Your task to perform on an android device: check android version Image 0: 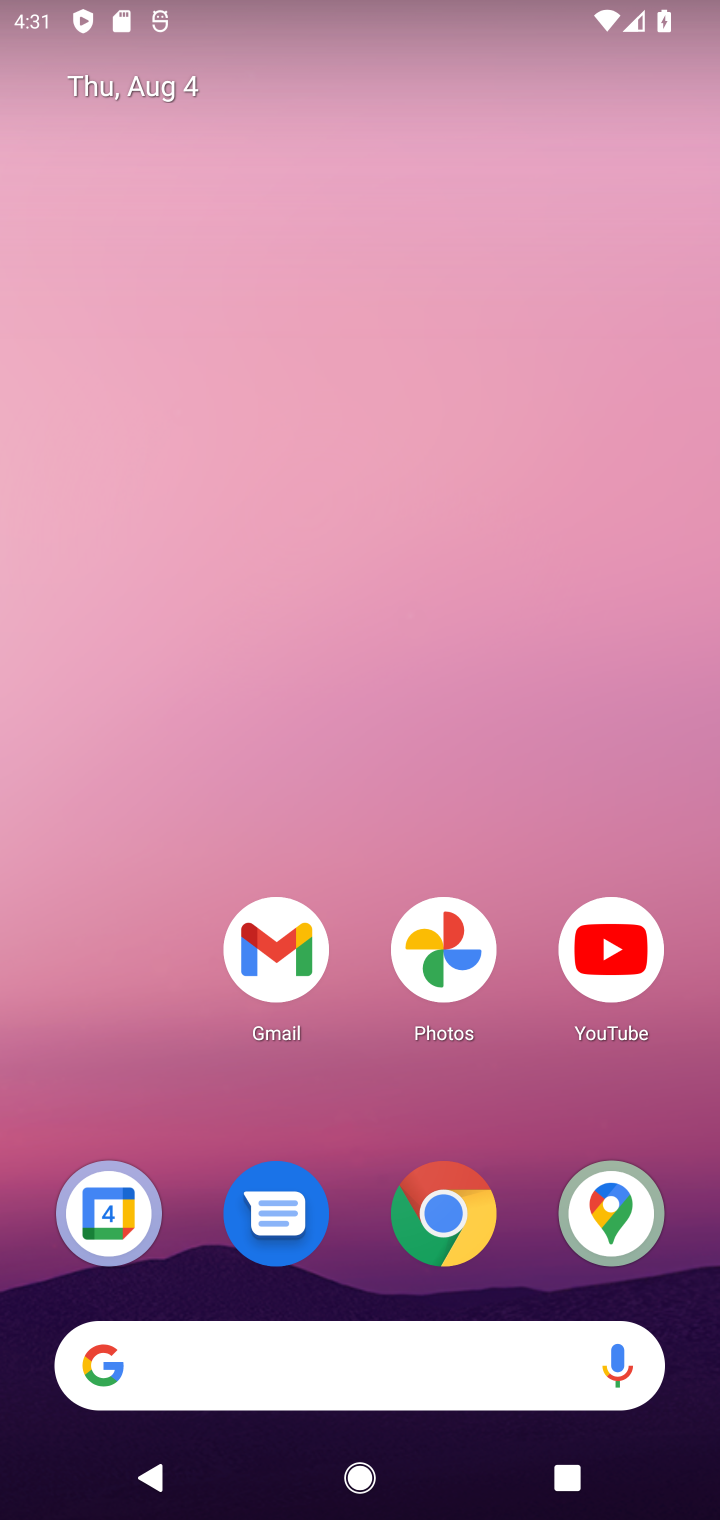
Step 0: press home button
Your task to perform on an android device: check android version Image 1: 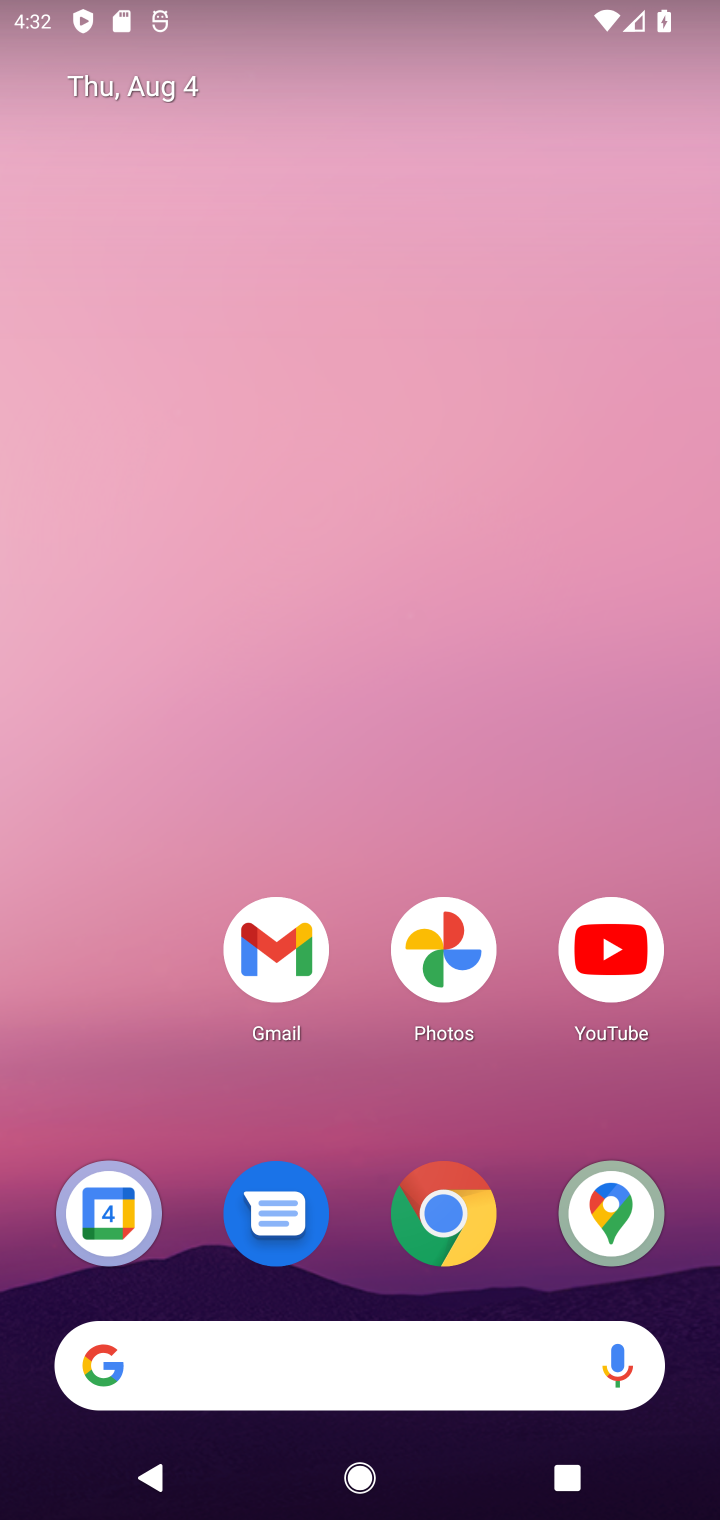
Step 1: drag from (191, 1149) to (185, 487)
Your task to perform on an android device: check android version Image 2: 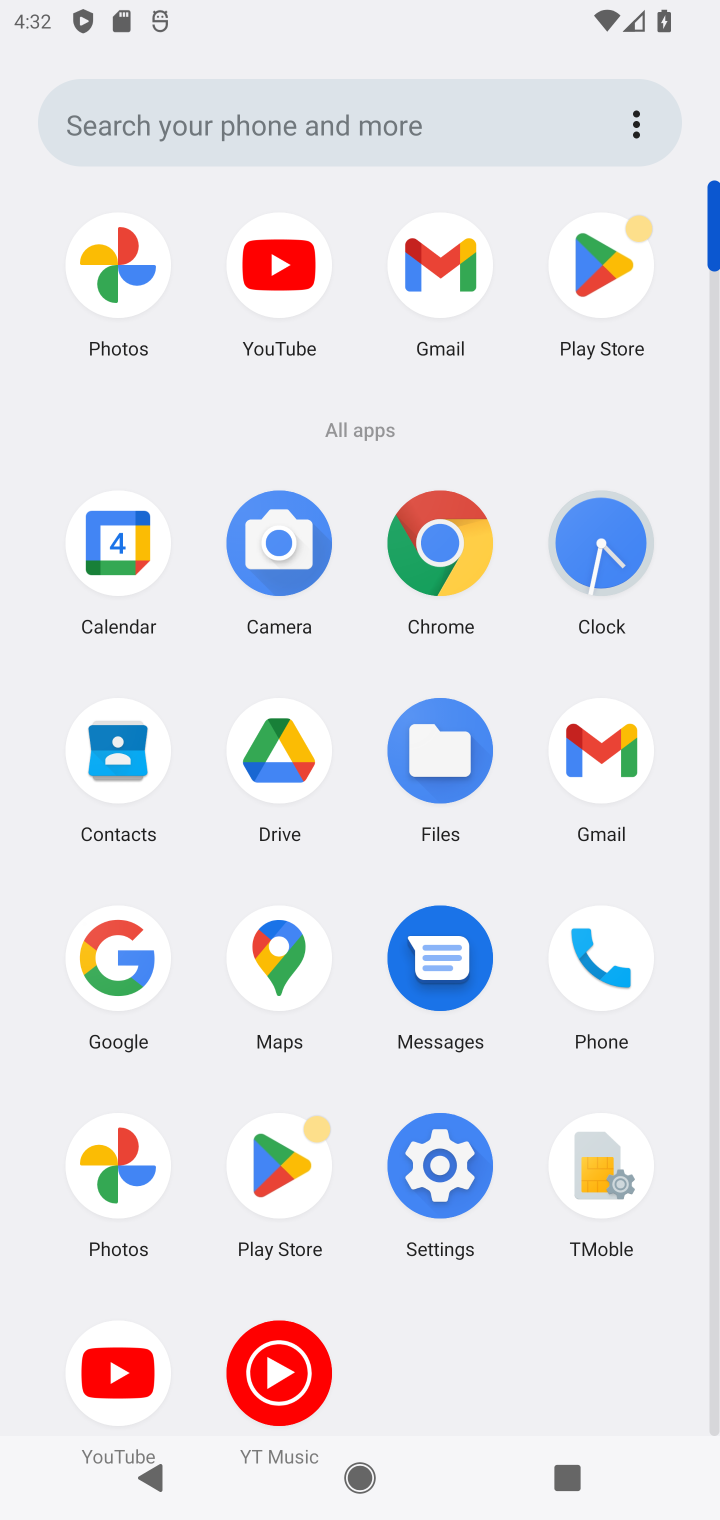
Step 2: click (439, 1162)
Your task to perform on an android device: check android version Image 3: 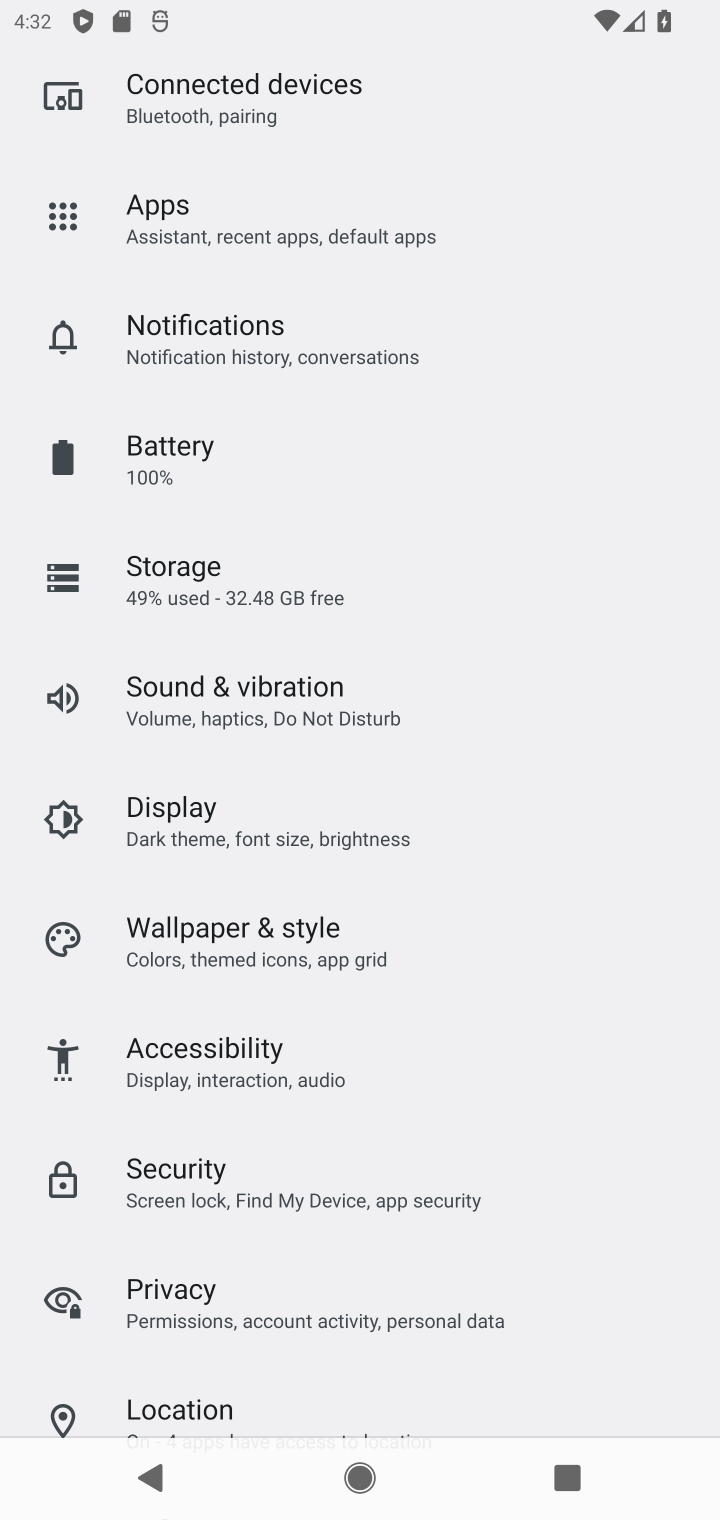
Step 3: drag from (602, 1275) to (594, 1093)
Your task to perform on an android device: check android version Image 4: 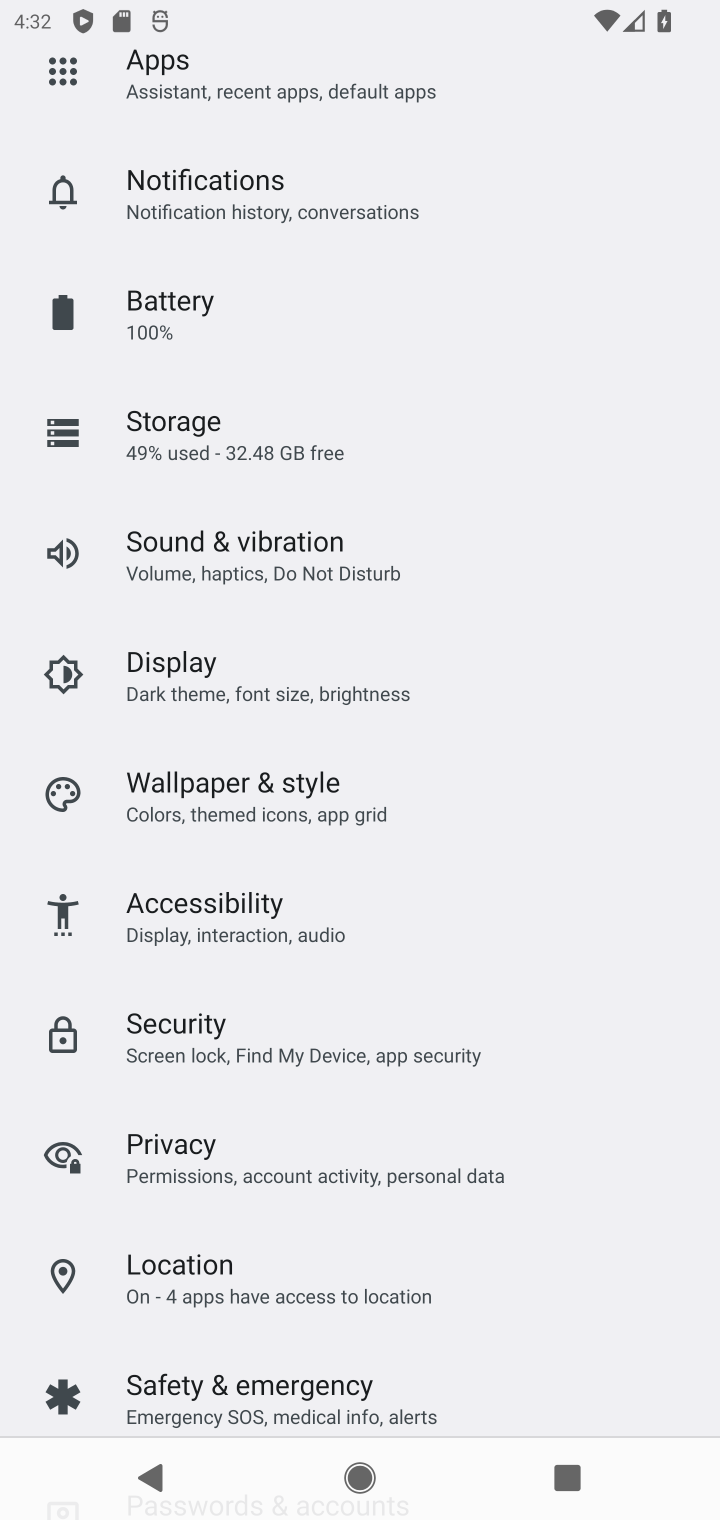
Step 4: drag from (588, 1196) to (621, 897)
Your task to perform on an android device: check android version Image 5: 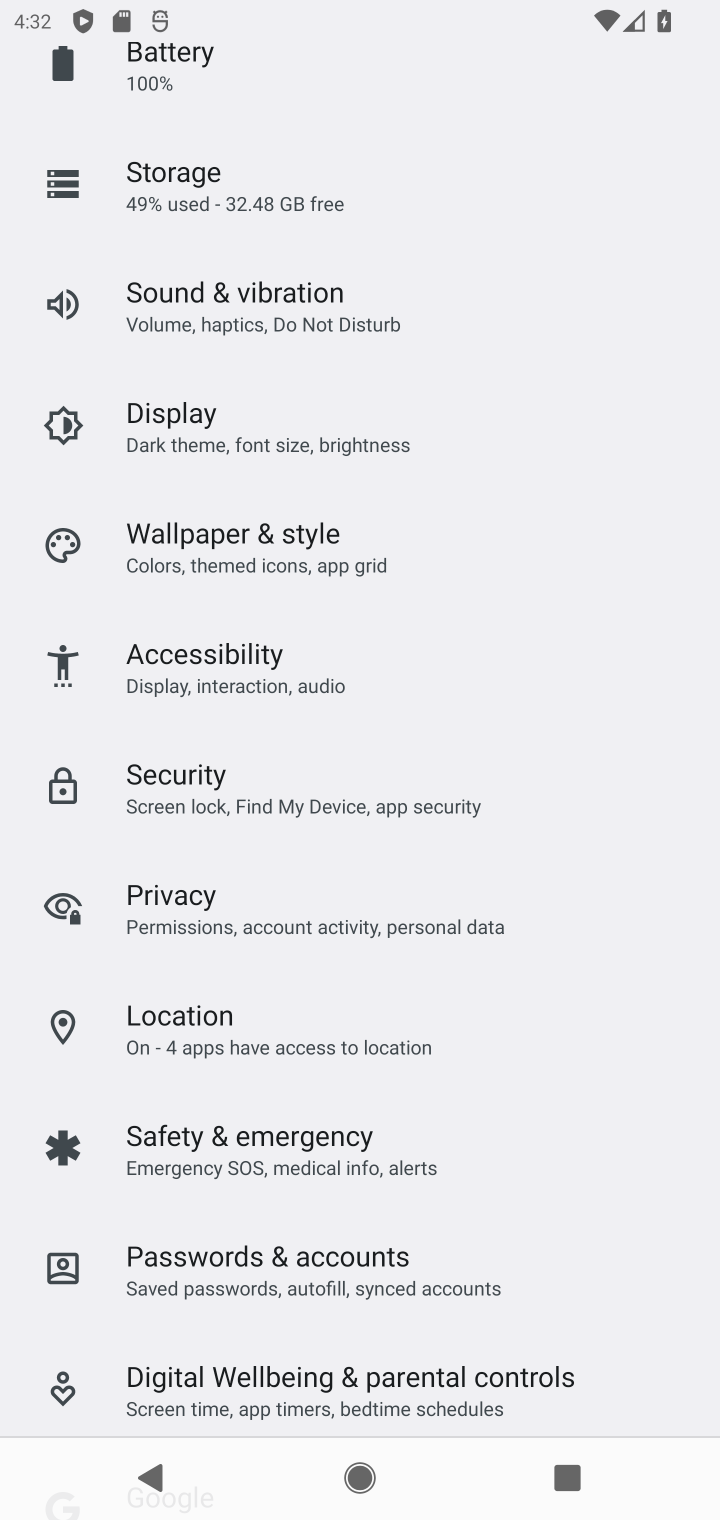
Step 5: drag from (553, 1221) to (578, 789)
Your task to perform on an android device: check android version Image 6: 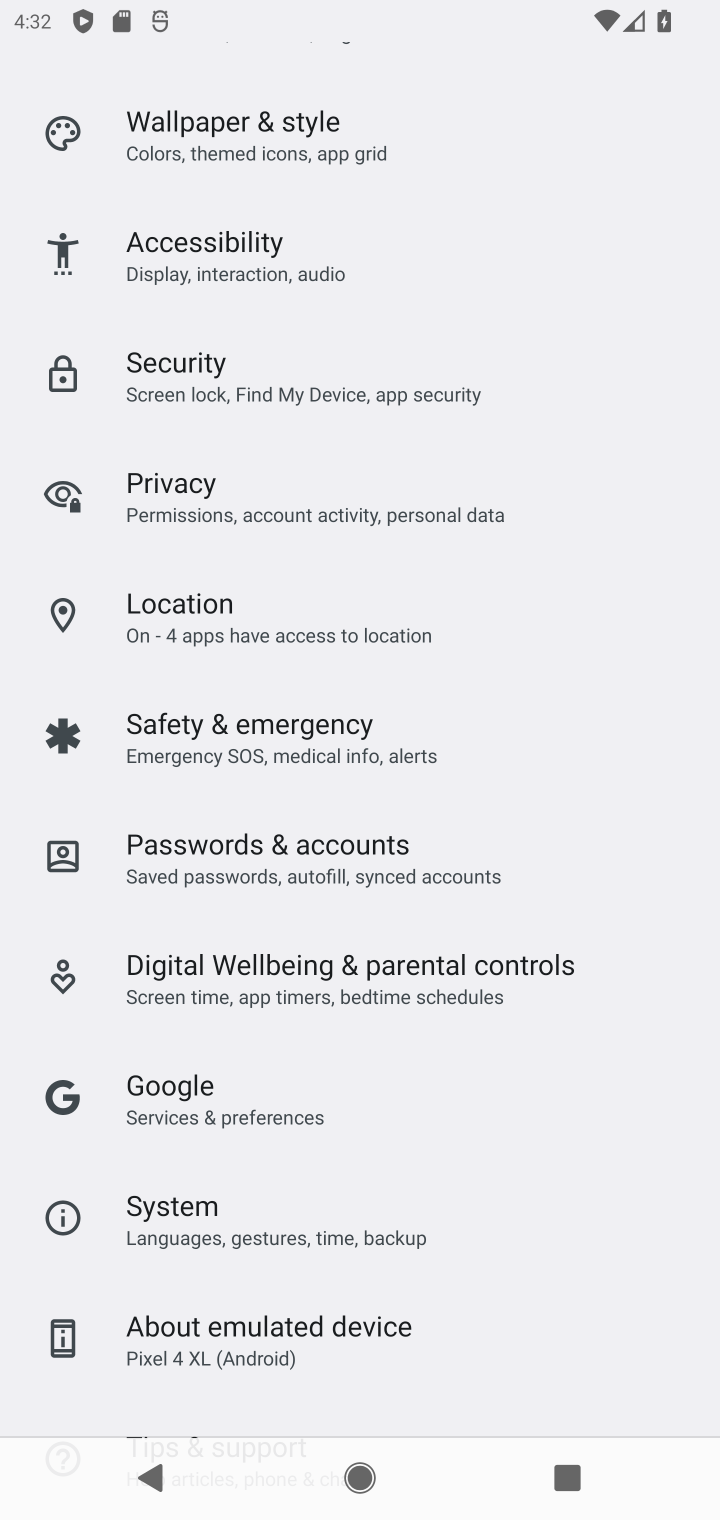
Step 6: drag from (578, 1263) to (565, 900)
Your task to perform on an android device: check android version Image 7: 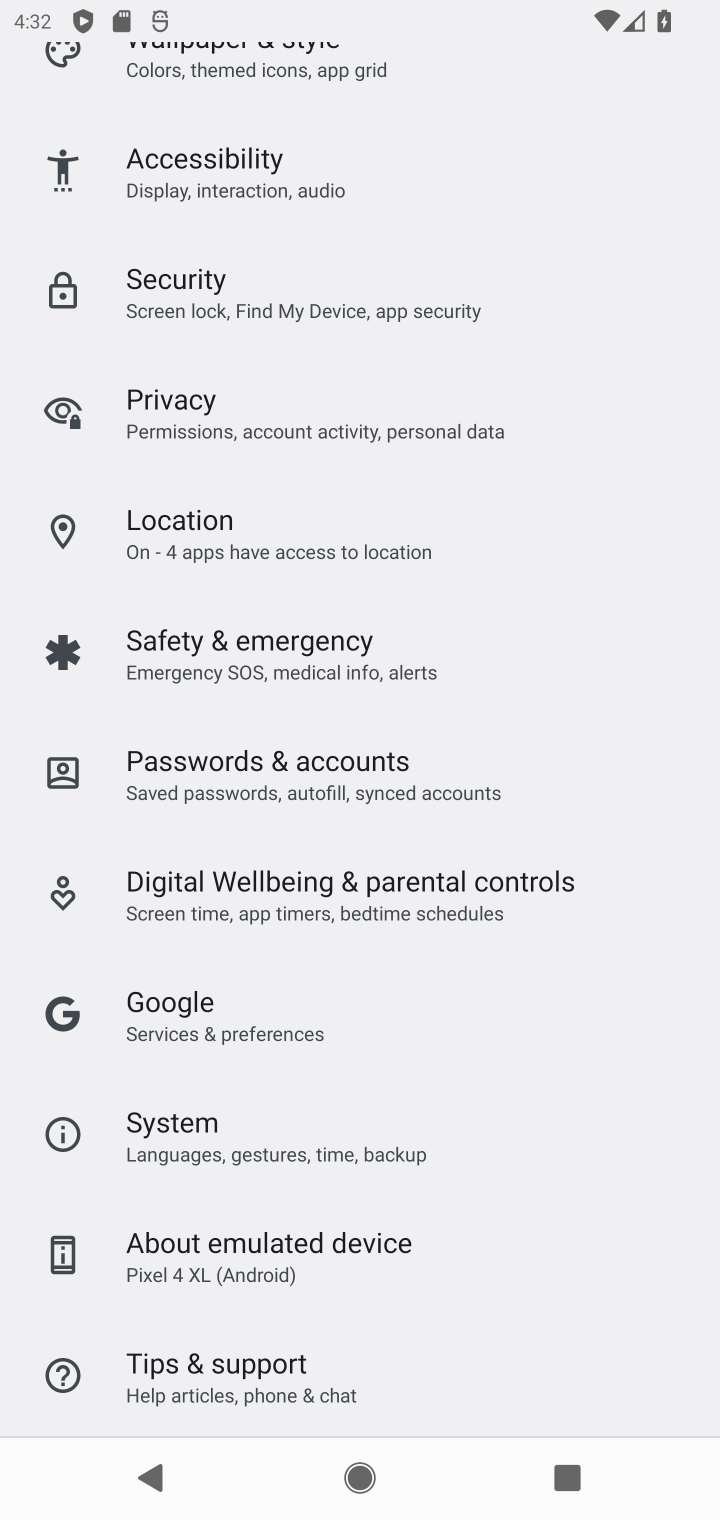
Step 7: drag from (536, 1300) to (528, 857)
Your task to perform on an android device: check android version Image 8: 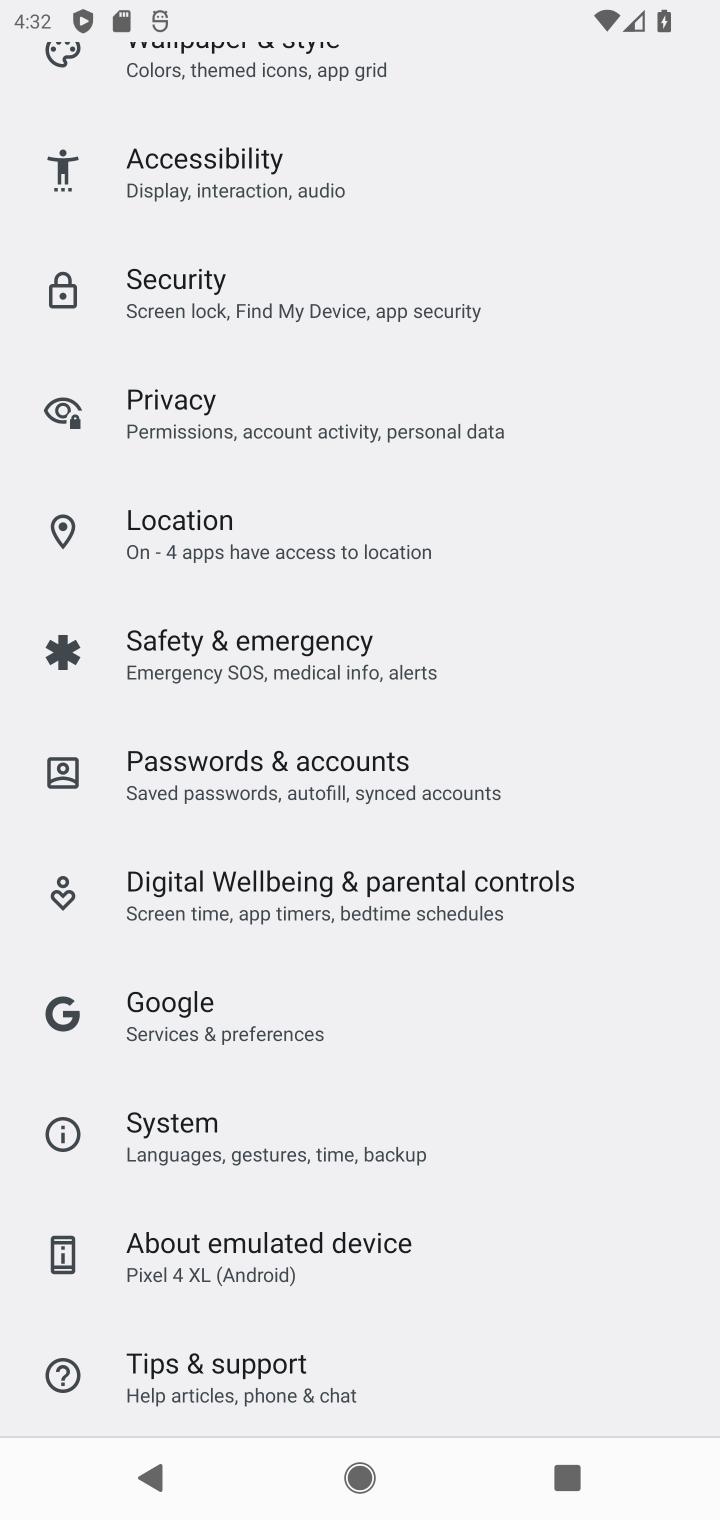
Step 8: click (401, 1147)
Your task to perform on an android device: check android version Image 9: 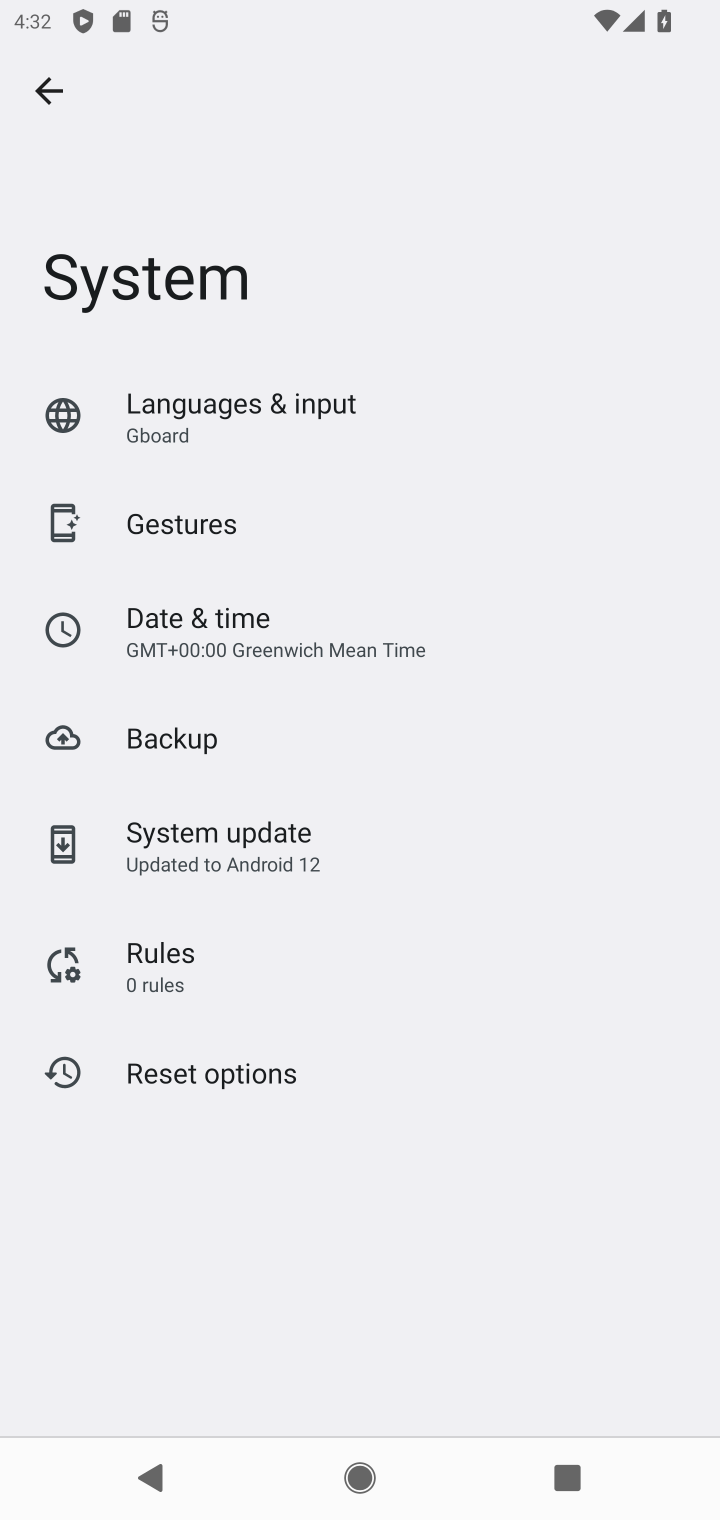
Step 9: task complete